Your task to perform on an android device: add a contact in the contacts app Image 0: 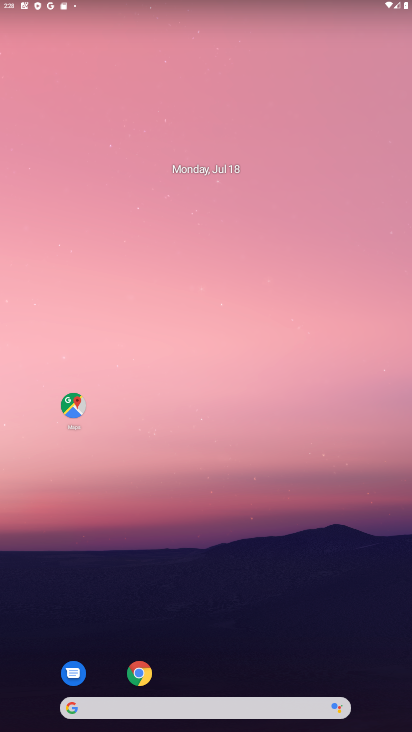
Step 0: drag from (196, 706) to (216, 42)
Your task to perform on an android device: add a contact in the contacts app Image 1: 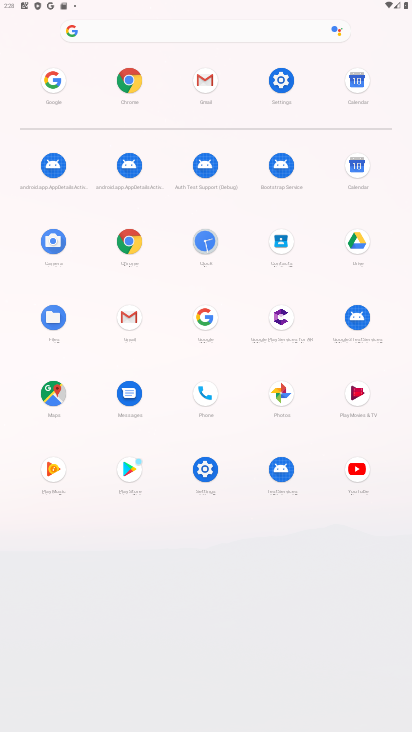
Step 1: click (283, 245)
Your task to perform on an android device: add a contact in the contacts app Image 2: 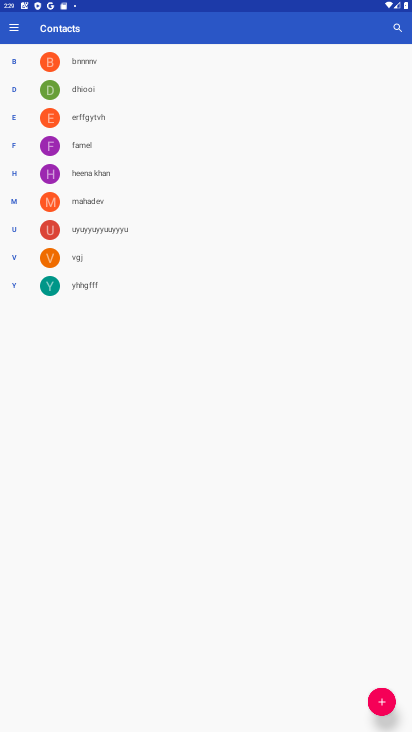
Step 2: click (382, 704)
Your task to perform on an android device: add a contact in the contacts app Image 3: 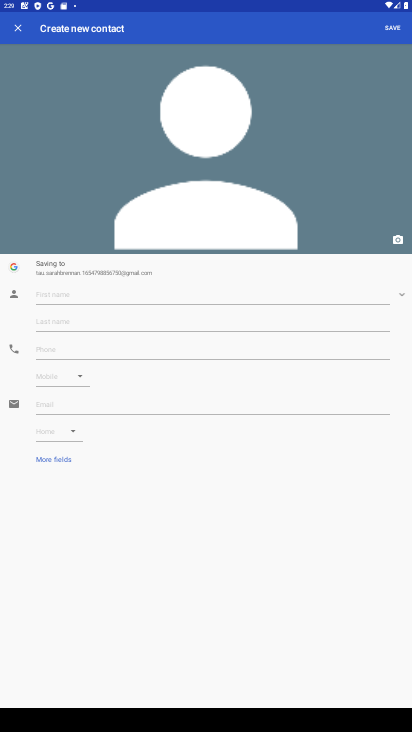
Step 3: click (271, 299)
Your task to perform on an android device: add a contact in the contacts app Image 4: 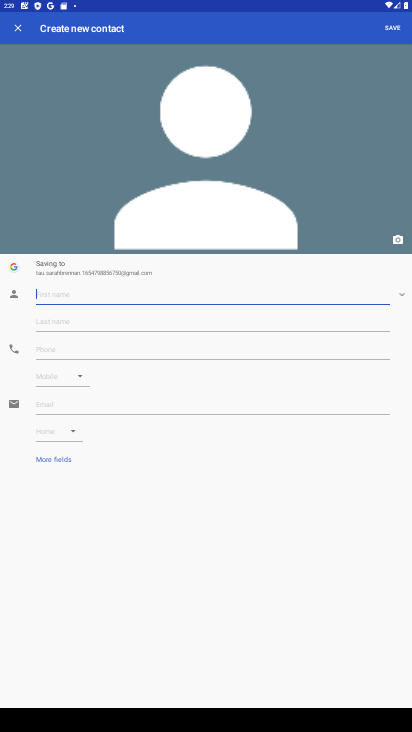
Step 4: type "Jaithalaal"
Your task to perform on an android device: add a contact in the contacts app Image 5: 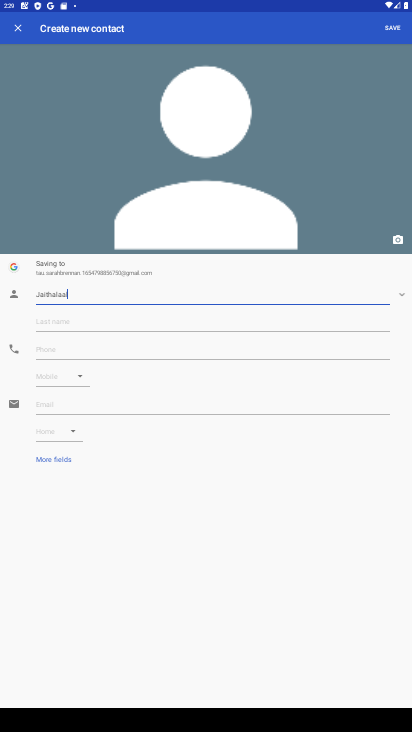
Step 5: click (125, 335)
Your task to perform on an android device: add a contact in the contacts app Image 6: 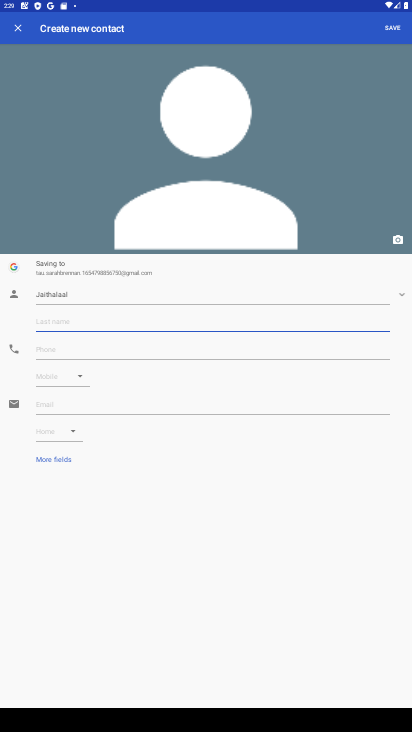
Step 6: type "Gada"
Your task to perform on an android device: add a contact in the contacts app Image 7: 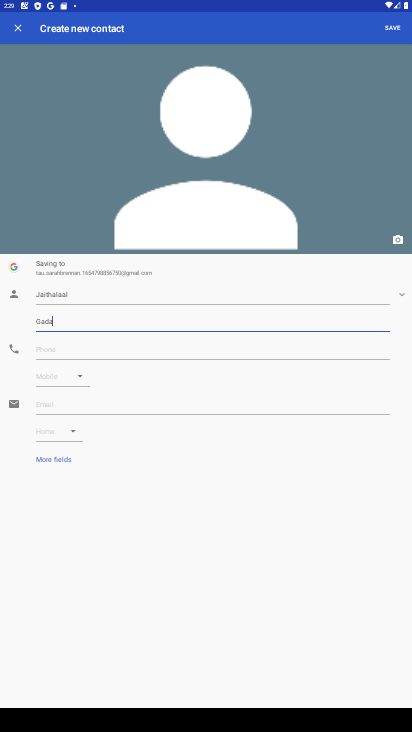
Step 7: click (143, 350)
Your task to perform on an android device: add a contact in the contacts app Image 8: 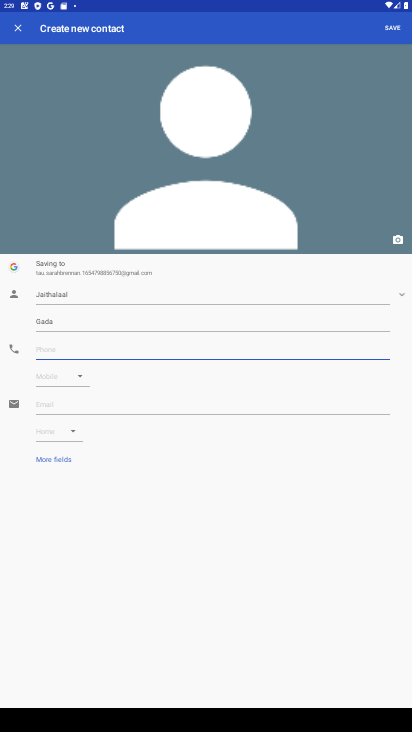
Step 8: type "09988777666555"
Your task to perform on an android device: add a contact in the contacts app Image 9: 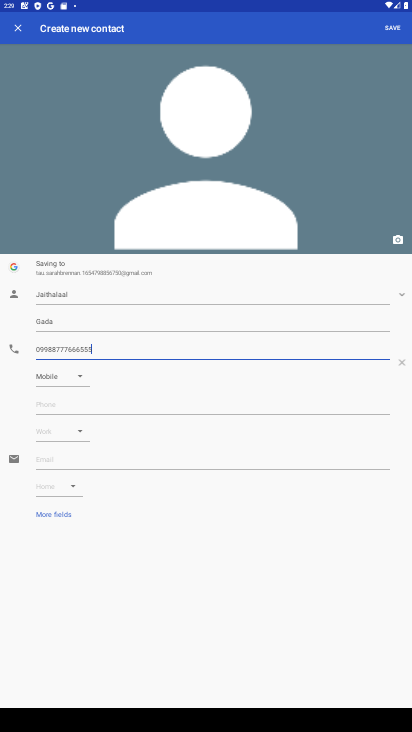
Step 9: click (395, 25)
Your task to perform on an android device: add a contact in the contacts app Image 10: 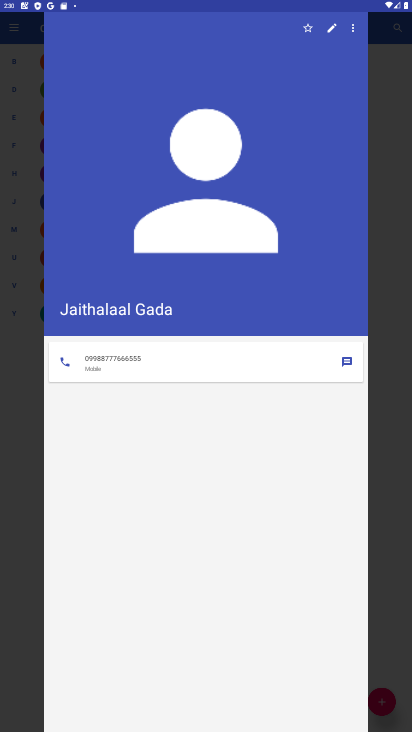
Step 10: task complete